Your task to perform on an android device: When is my next appointment? Image 0: 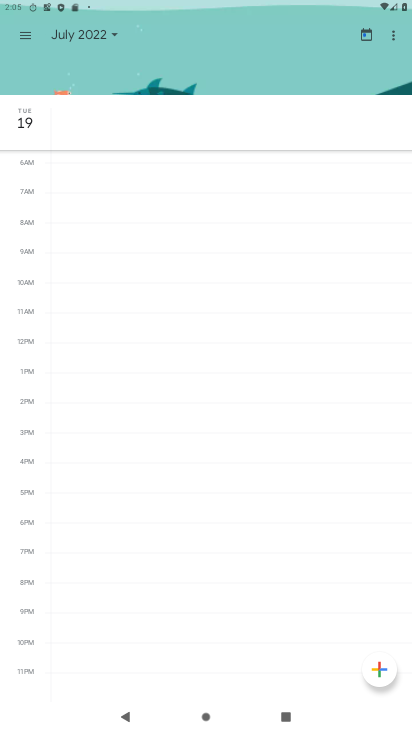
Step 0: press home button
Your task to perform on an android device: When is my next appointment? Image 1: 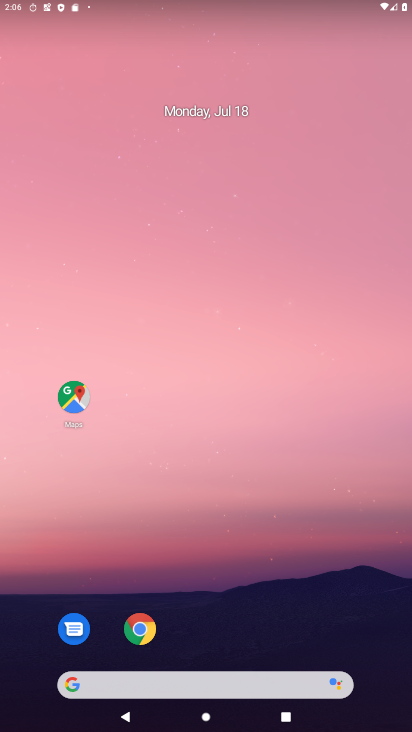
Step 1: drag from (236, 644) to (222, 196)
Your task to perform on an android device: When is my next appointment? Image 2: 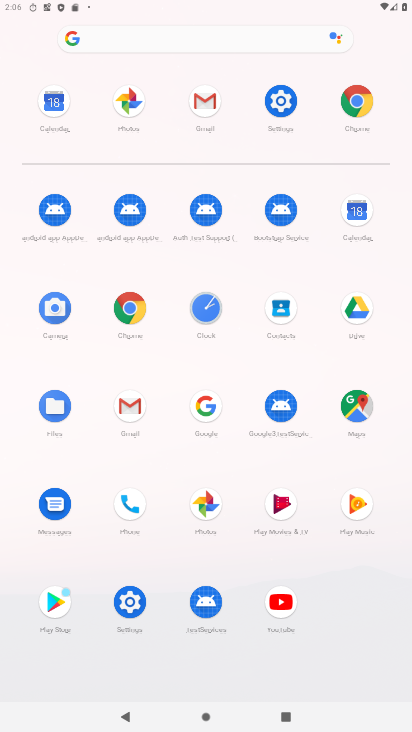
Step 2: click (358, 210)
Your task to perform on an android device: When is my next appointment? Image 3: 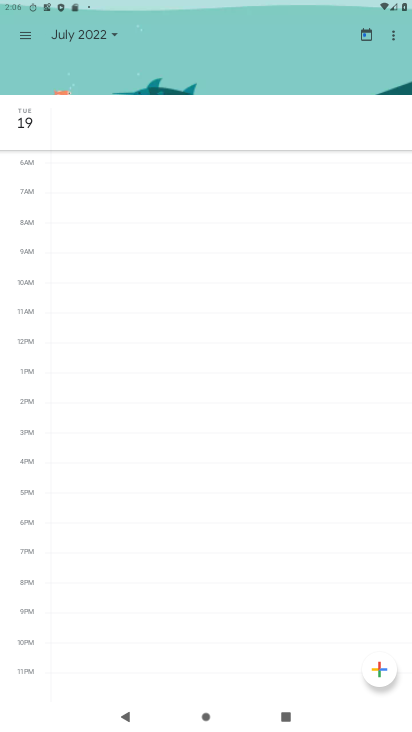
Step 3: click (31, 31)
Your task to perform on an android device: When is my next appointment? Image 4: 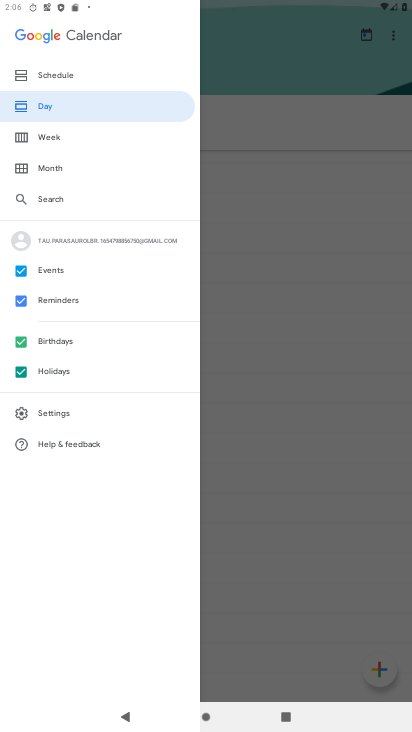
Step 4: click (50, 133)
Your task to perform on an android device: When is my next appointment? Image 5: 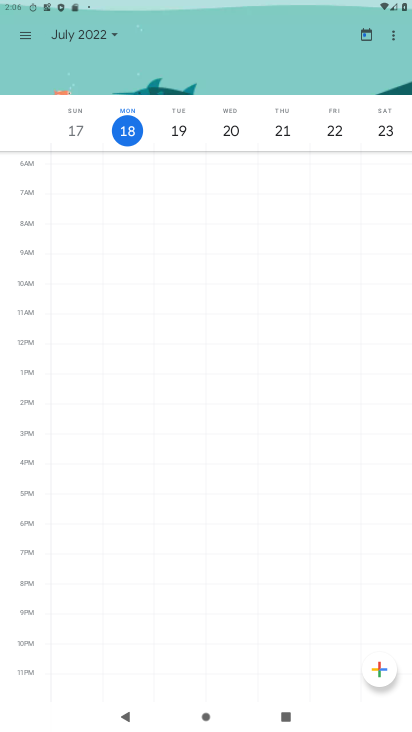
Step 5: task complete